Your task to perform on an android device: change the clock style Image 0: 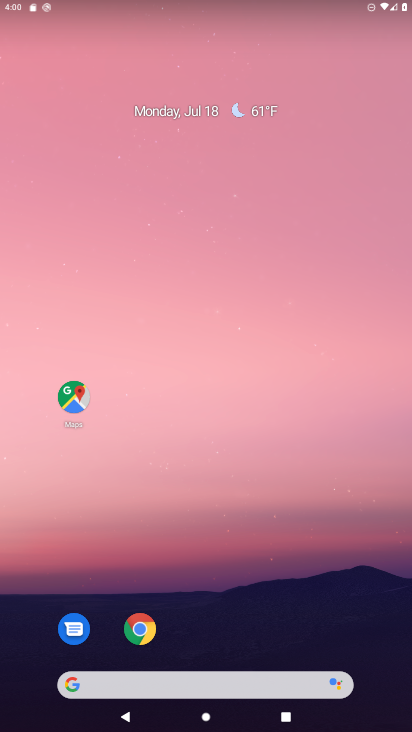
Step 0: drag from (164, 703) to (207, 308)
Your task to perform on an android device: change the clock style Image 1: 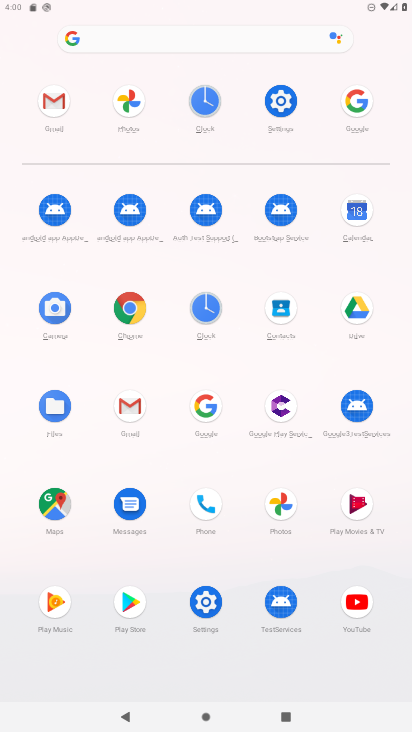
Step 1: click (214, 107)
Your task to perform on an android device: change the clock style Image 2: 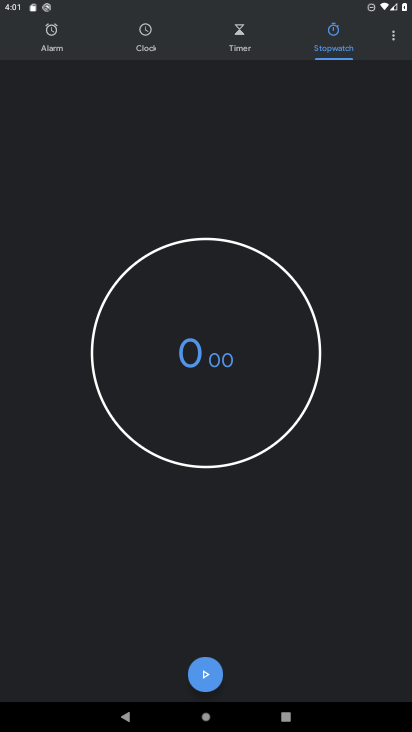
Step 2: click (394, 38)
Your task to perform on an android device: change the clock style Image 3: 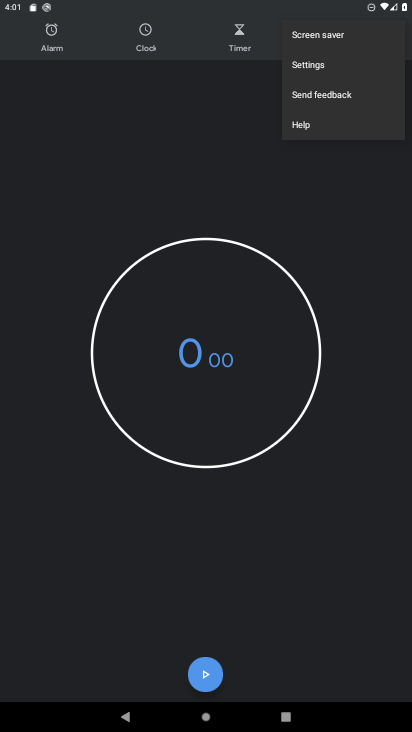
Step 3: click (305, 72)
Your task to perform on an android device: change the clock style Image 4: 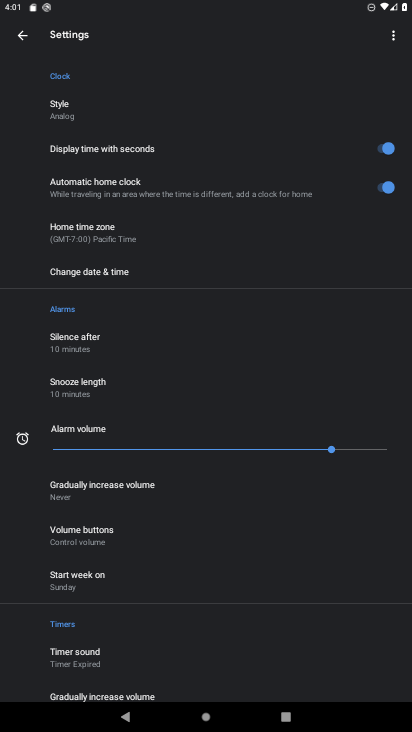
Step 4: click (67, 115)
Your task to perform on an android device: change the clock style Image 5: 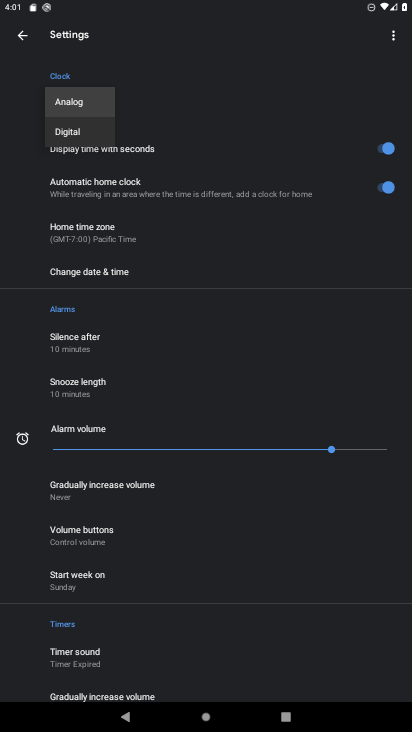
Step 5: click (65, 129)
Your task to perform on an android device: change the clock style Image 6: 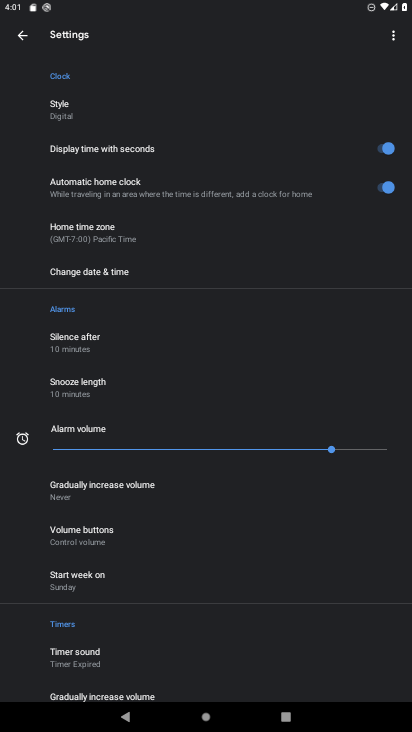
Step 6: task complete